Your task to perform on an android device: open the mobile data screen to see how much data has been used Image 0: 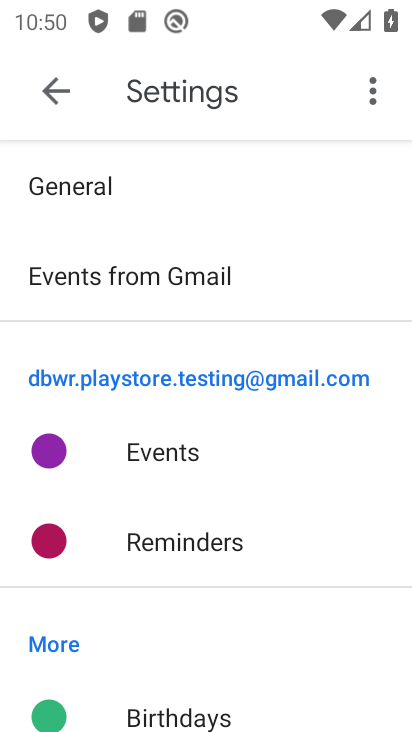
Step 0: press home button
Your task to perform on an android device: open the mobile data screen to see how much data has been used Image 1: 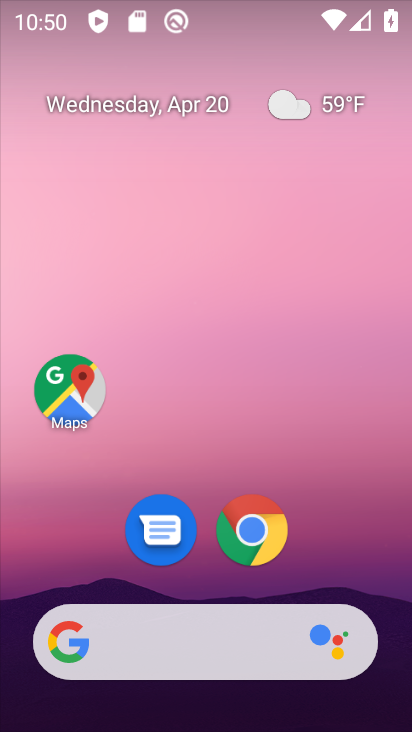
Step 1: drag from (299, 19) to (133, 521)
Your task to perform on an android device: open the mobile data screen to see how much data has been used Image 2: 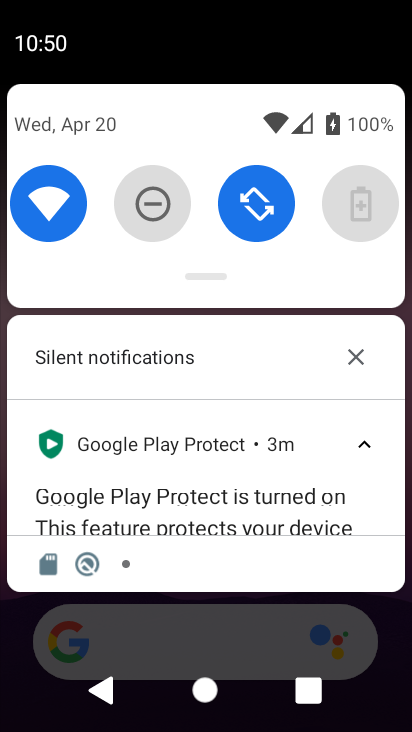
Step 2: drag from (205, 271) to (174, 676)
Your task to perform on an android device: open the mobile data screen to see how much data has been used Image 3: 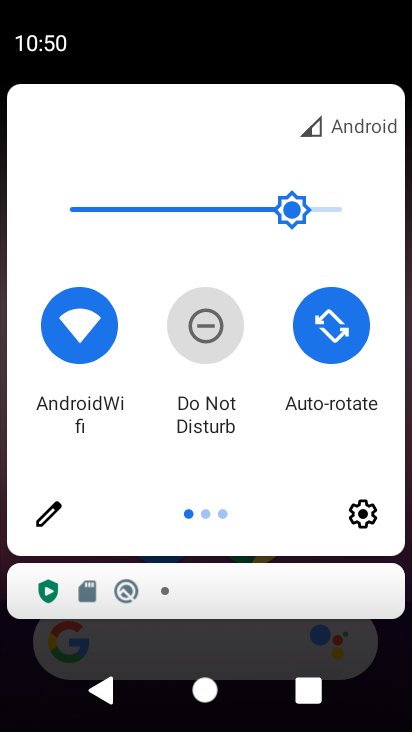
Step 3: drag from (315, 448) to (14, 450)
Your task to perform on an android device: open the mobile data screen to see how much data has been used Image 4: 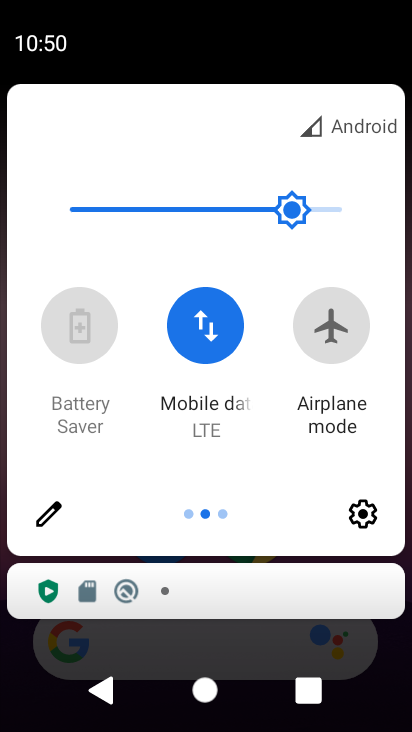
Step 4: click (235, 327)
Your task to perform on an android device: open the mobile data screen to see how much data has been used Image 5: 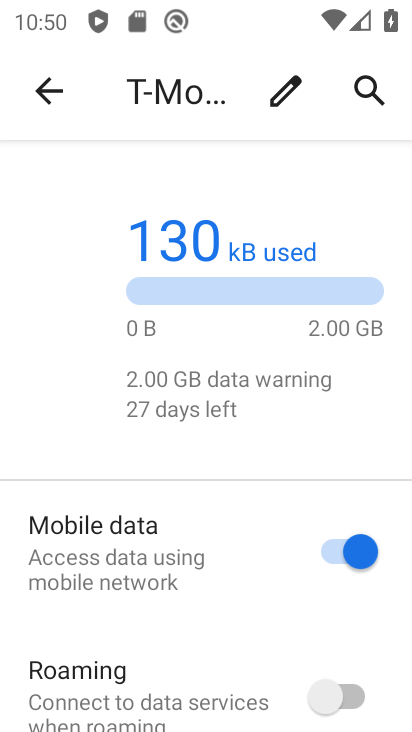
Step 5: task complete